Your task to perform on an android device: Set the phone to "Do not disturb". Image 0: 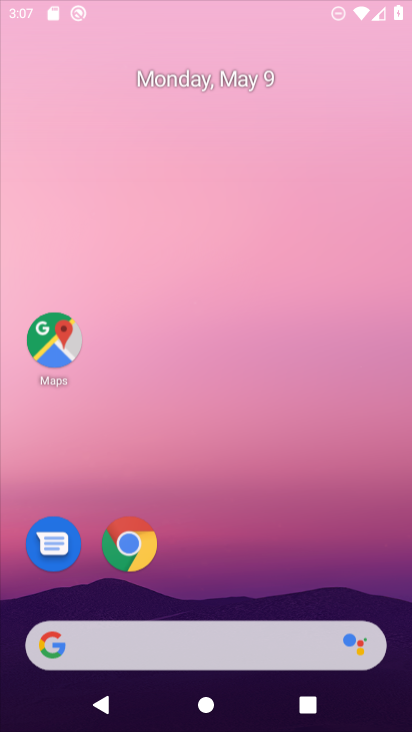
Step 0: click (233, 137)
Your task to perform on an android device: Set the phone to "Do not disturb". Image 1: 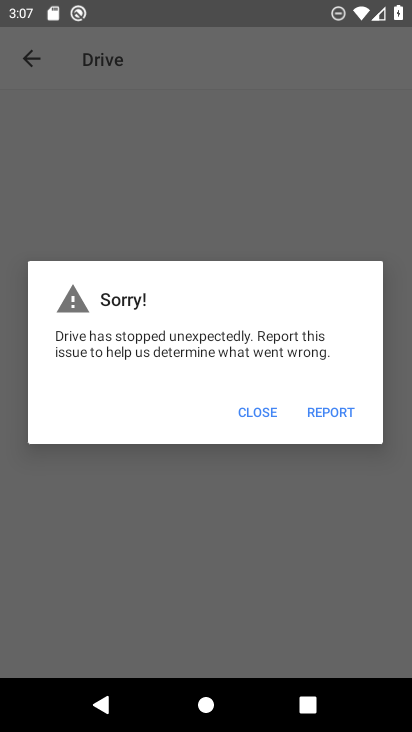
Step 1: press home button
Your task to perform on an android device: Set the phone to "Do not disturb". Image 2: 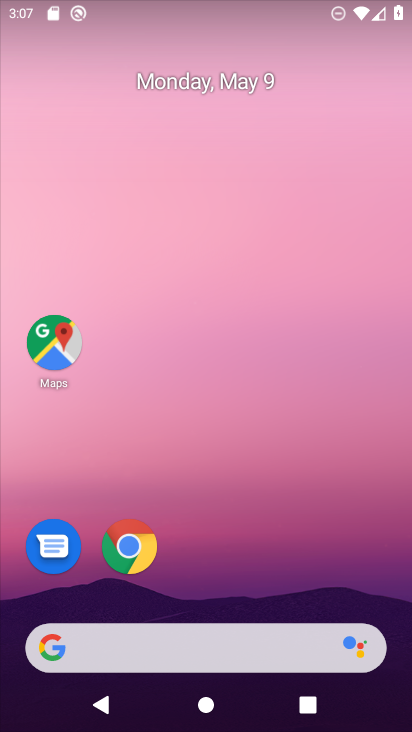
Step 2: drag from (211, 548) to (237, 12)
Your task to perform on an android device: Set the phone to "Do not disturb". Image 3: 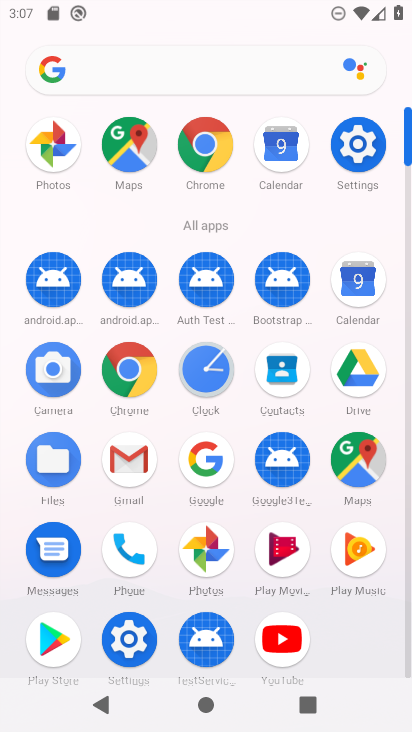
Step 3: click (352, 163)
Your task to perform on an android device: Set the phone to "Do not disturb". Image 4: 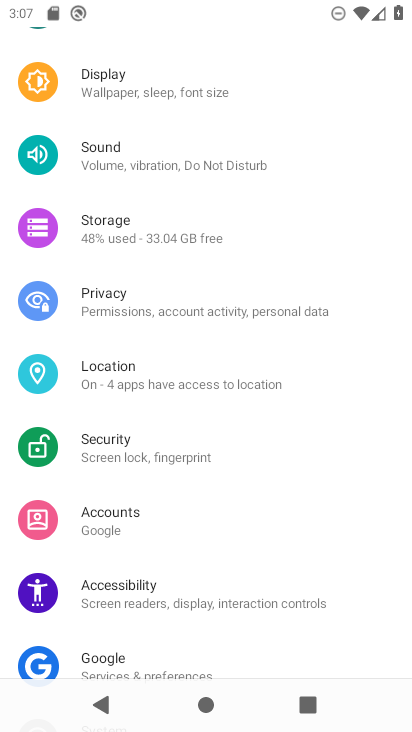
Step 4: click (172, 155)
Your task to perform on an android device: Set the phone to "Do not disturb". Image 5: 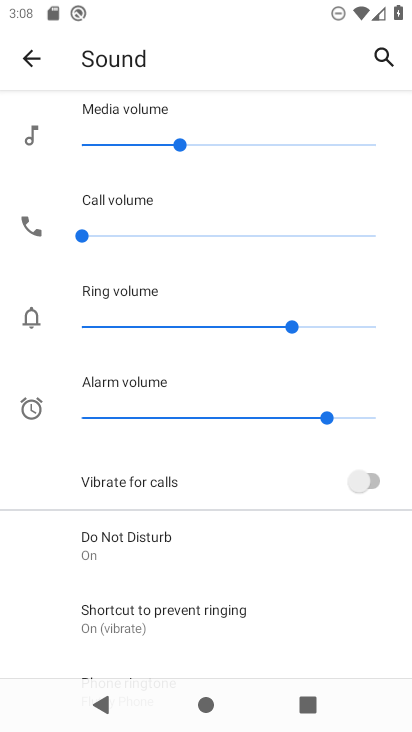
Step 5: click (196, 551)
Your task to perform on an android device: Set the phone to "Do not disturb". Image 6: 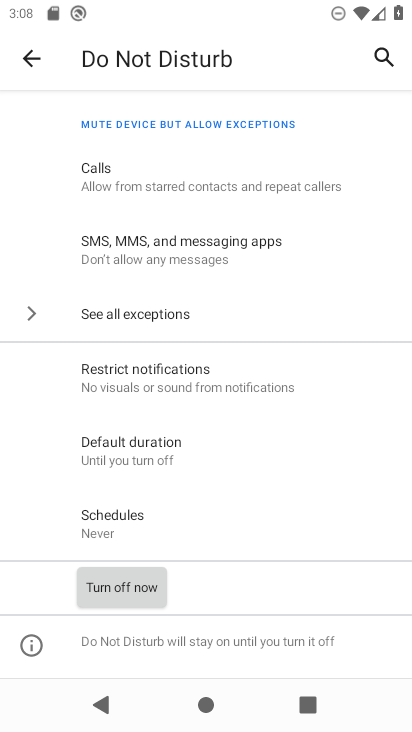
Step 6: task complete